Your task to perform on an android device: Go to accessibility settings Image 0: 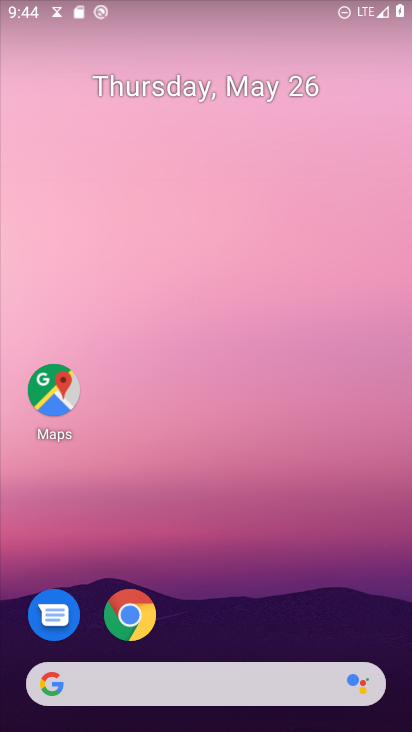
Step 0: drag from (201, 601) to (226, 255)
Your task to perform on an android device: Go to accessibility settings Image 1: 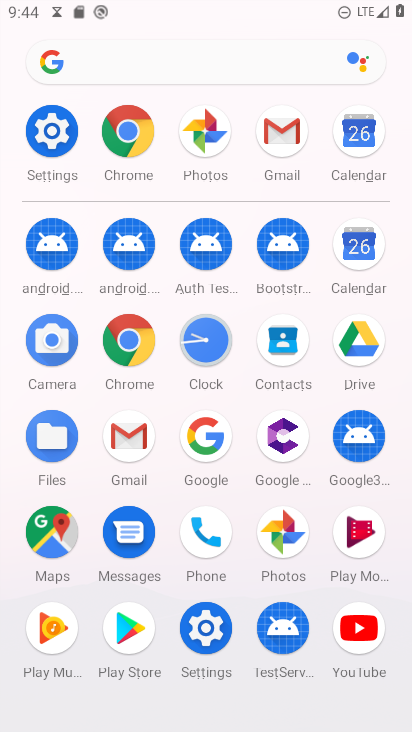
Step 1: click (38, 118)
Your task to perform on an android device: Go to accessibility settings Image 2: 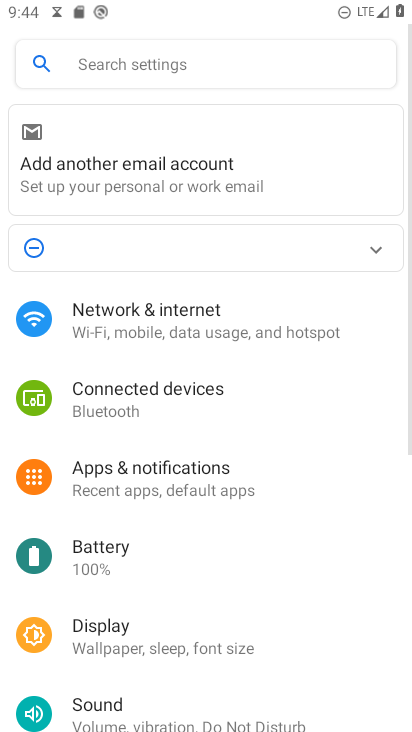
Step 2: drag from (175, 644) to (206, 215)
Your task to perform on an android device: Go to accessibility settings Image 3: 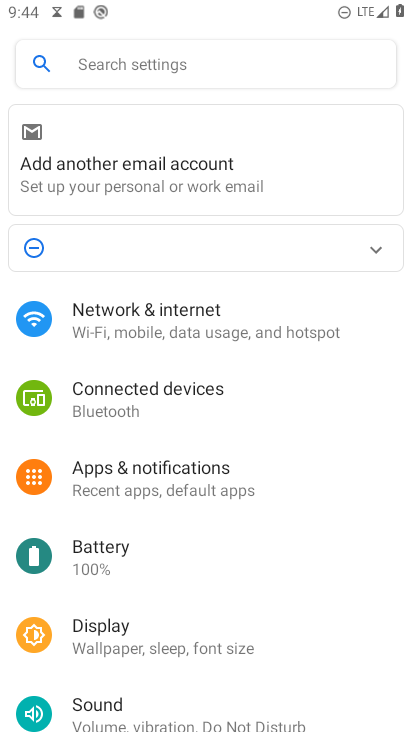
Step 3: drag from (156, 682) to (230, 193)
Your task to perform on an android device: Go to accessibility settings Image 4: 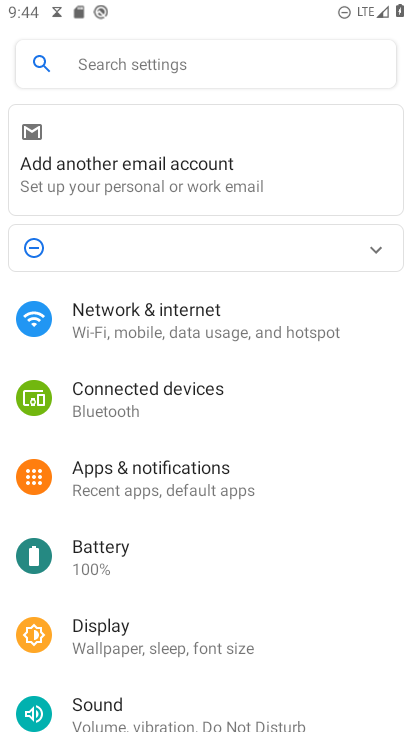
Step 4: drag from (237, 609) to (237, 341)
Your task to perform on an android device: Go to accessibility settings Image 5: 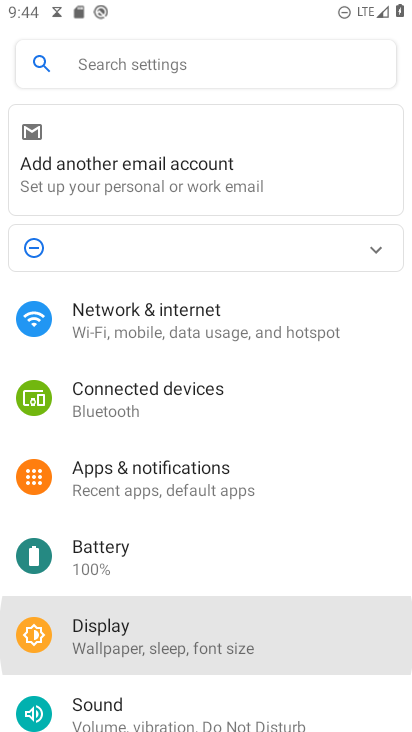
Step 5: drag from (223, 544) to (224, 264)
Your task to perform on an android device: Go to accessibility settings Image 6: 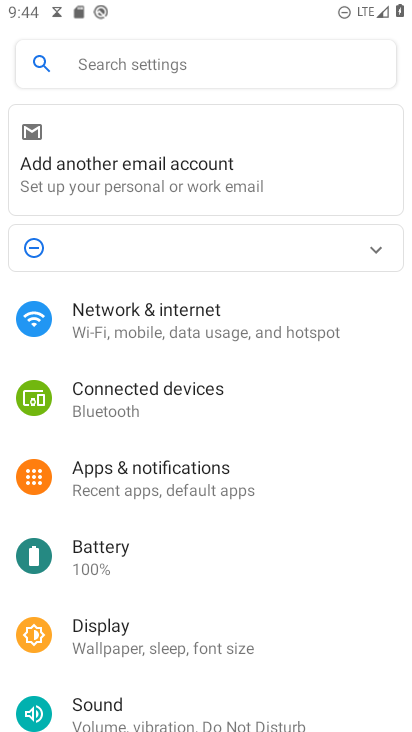
Step 6: drag from (218, 487) to (235, 139)
Your task to perform on an android device: Go to accessibility settings Image 7: 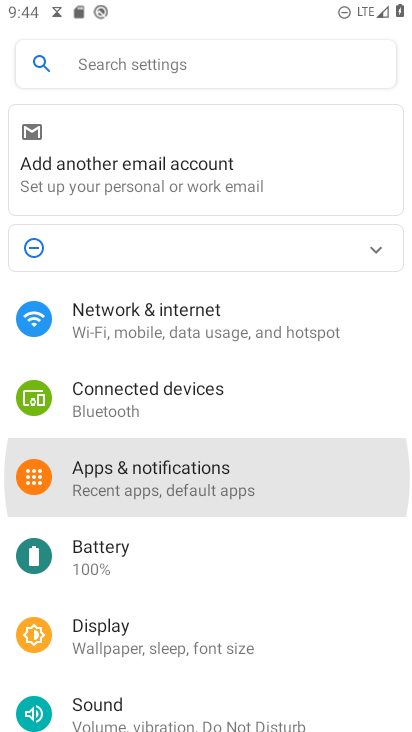
Step 7: drag from (200, 467) to (233, 165)
Your task to perform on an android device: Go to accessibility settings Image 8: 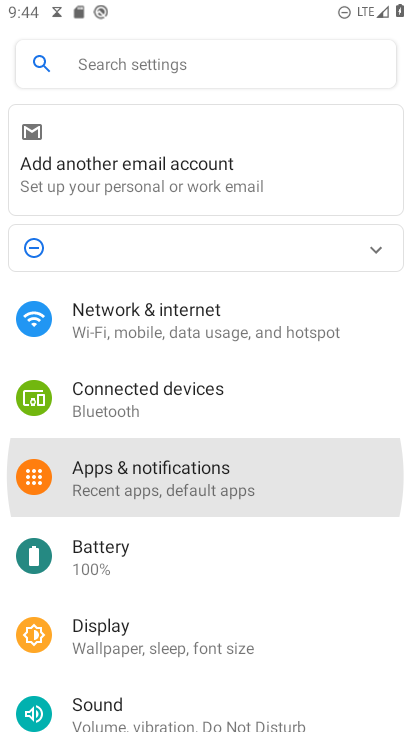
Step 8: drag from (208, 457) to (227, 177)
Your task to perform on an android device: Go to accessibility settings Image 9: 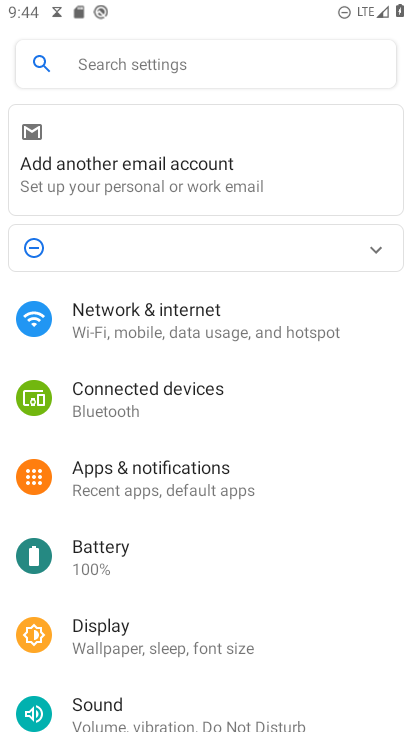
Step 9: drag from (214, 539) to (258, 173)
Your task to perform on an android device: Go to accessibility settings Image 10: 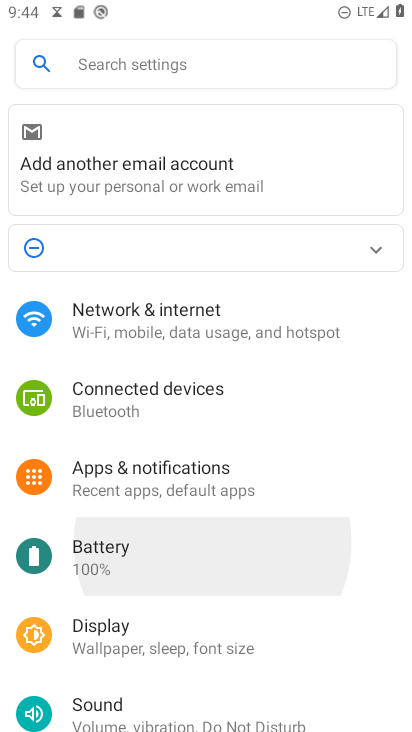
Step 10: drag from (205, 571) to (259, 246)
Your task to perform on an android device: Go to accessibility settings Image 11: 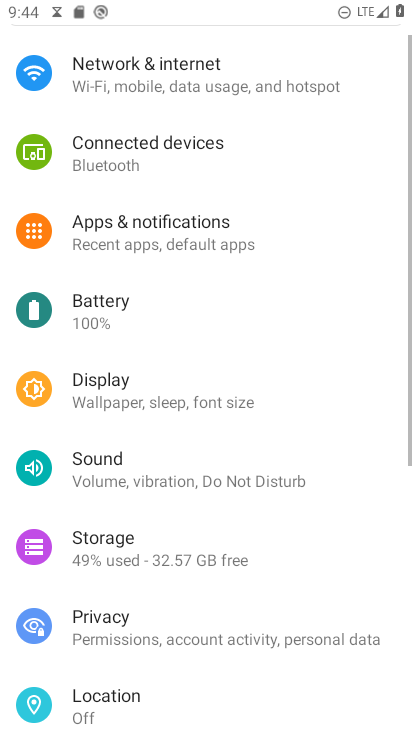
Step 11: drag from (206, 586) to (251, 243)
Your task to perform on an android device: Go to accessibility settings Image 12: 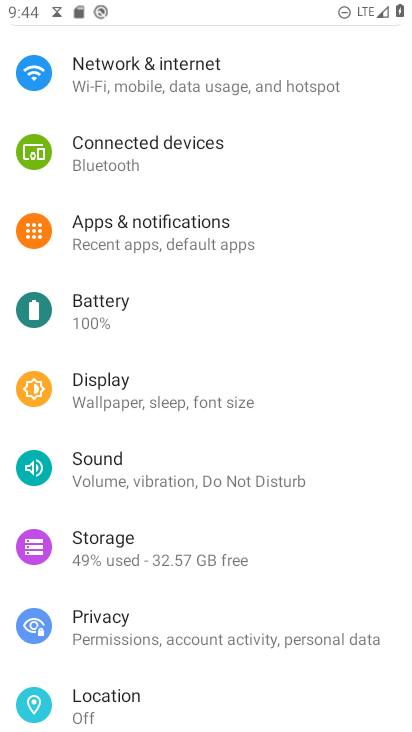
Step 12: drag from (207, 590) to (228, 178)
Your task to perform on an android device: Go to accessibility settings Image 13: 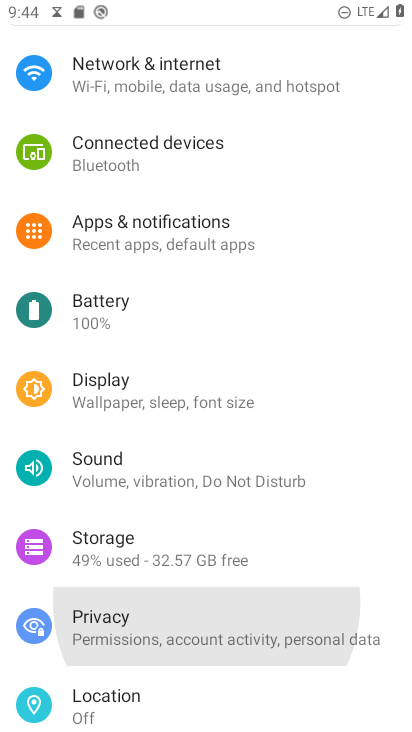
Step 13: drag from (170, 604) to (246, 241)
Your task to perform on an android device: Go to accessibility settings Image 14: 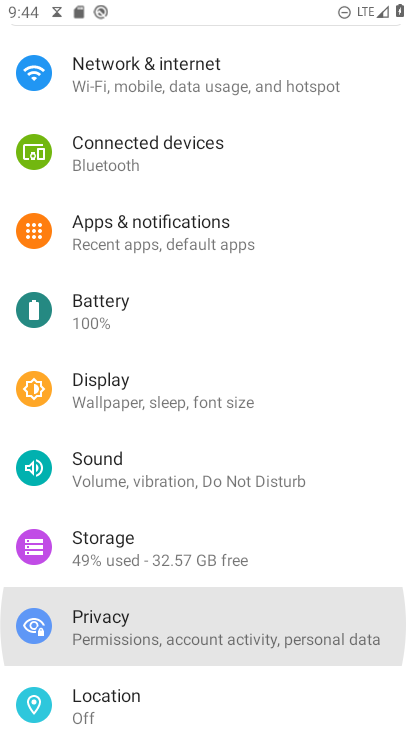
Step 14: drag from (198, 607) to (297, 140)
Your task to perform on an android device: Go to accessibility settings Image 15: 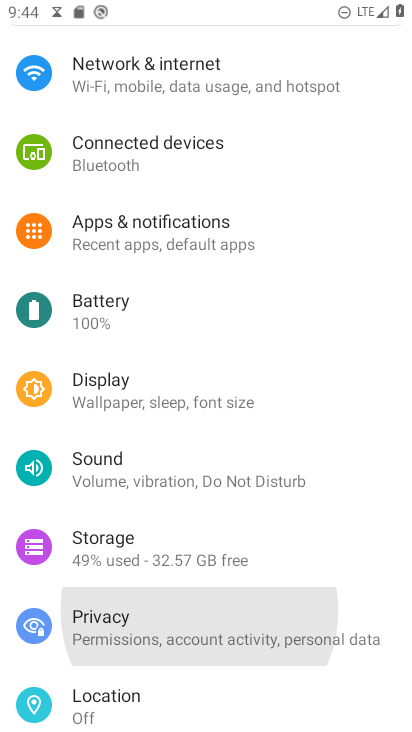
Step 15: drag from (243, 553) to (298, 158)
Your task to perform on an android device: Go to accessibility settings Image 16: 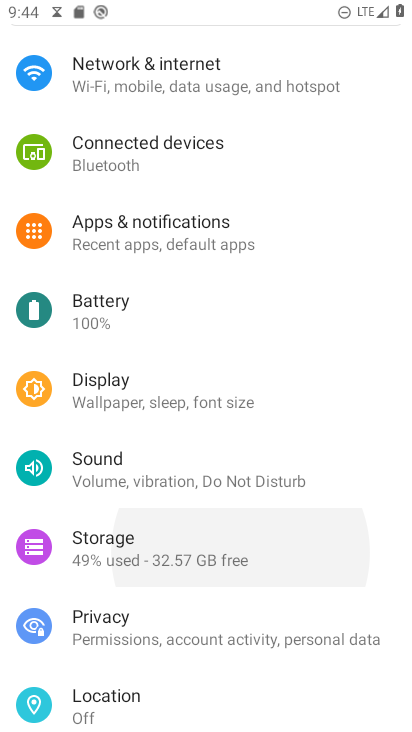
Step 16: drag from (217, 605) to (314, 140)
Your task to perform on an android device: Go to accessibility settings Image 17: 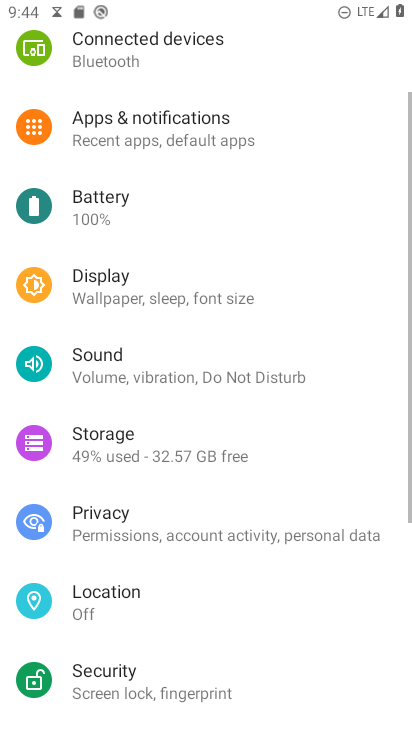
Step 17: drag from (248, 523) to (301, 188)
Your task to perform on an android device: Go to accessibility settings Image 18: 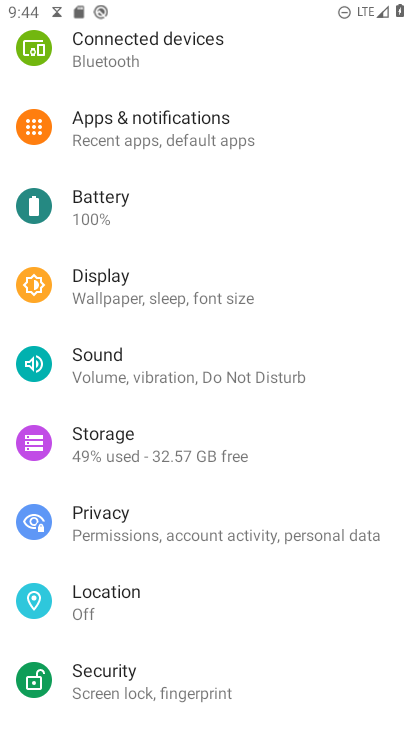
Step 18: drag from (163, 670) to (248, 225)
Your task to perform on an android device: Go to accessibility settings Image 19: 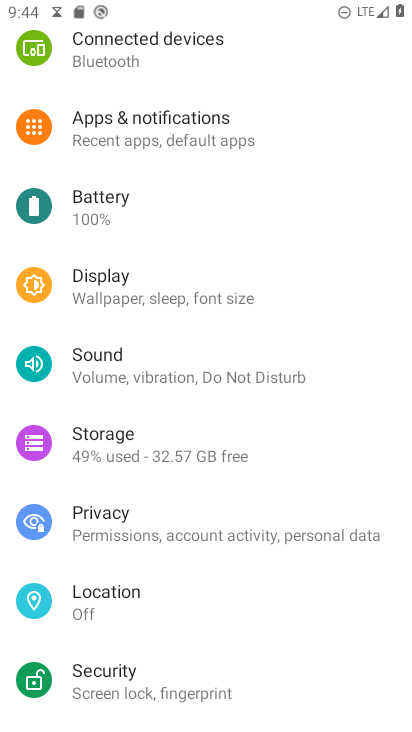
Step 19: drag from (260, 181) to (299, 31)
Your task to perform on an android device: Go to accessibility settings Image 20: 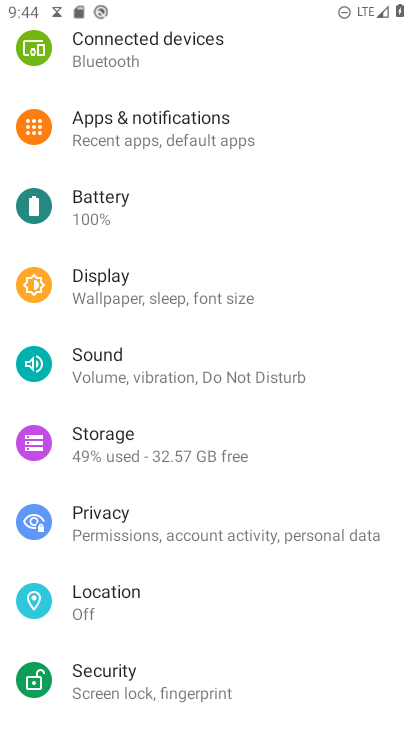
Step 20: click (137, 469)
Your task to perform on an android device: Go to accessibility settings Image 21: 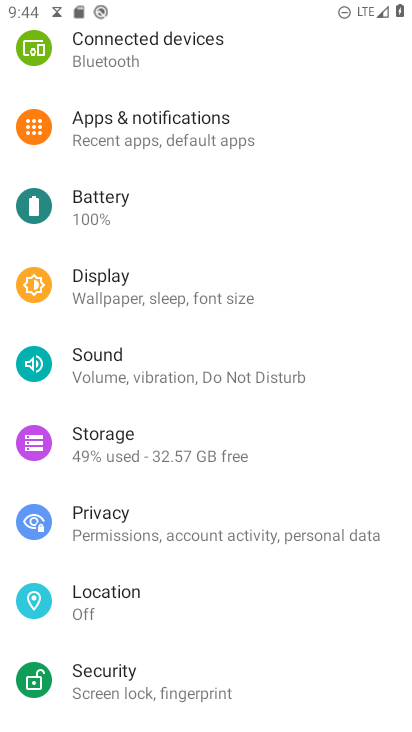
Step 21: drag from (118, 702) to (280, 207)
Your task to perform on an android device: Go to accessibility settings Image 22: 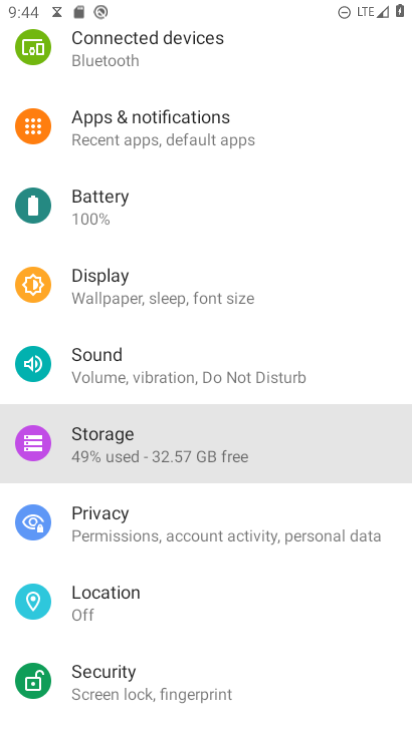
Step 22: drag from (176, 533) to (251, 258)
Your task to perform on an android device: Go to accessibility settings Image 23: 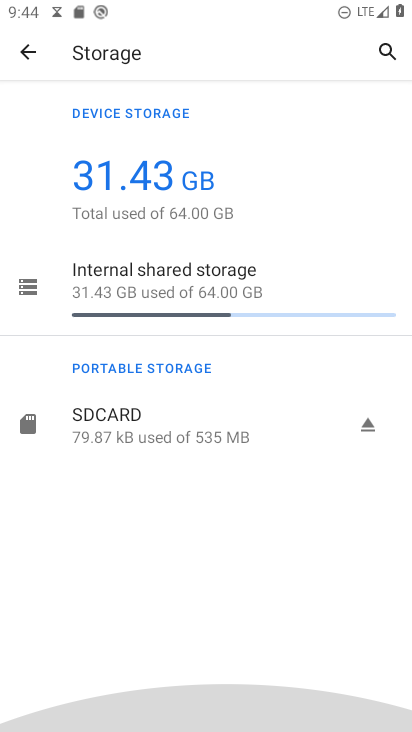
Step 23: drag from (188, 539) to (288, 196)
Your task to perform on an android device: Go to accessibility settings Image 24: 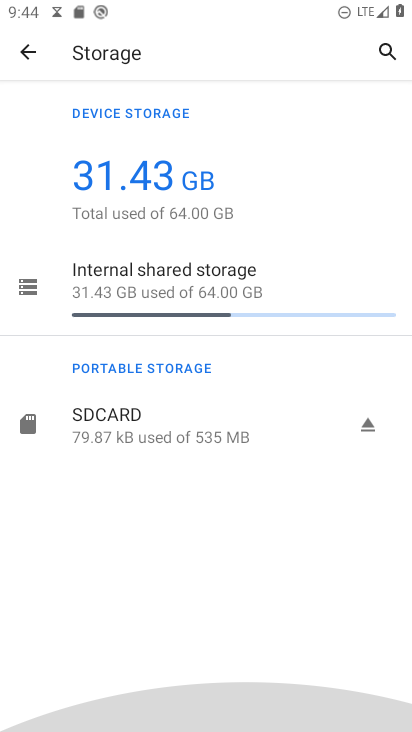
Step 24: drag from (233, 390) to (272, 210)
Your task to perform on an android device: Go to accessibility settings Image 25: 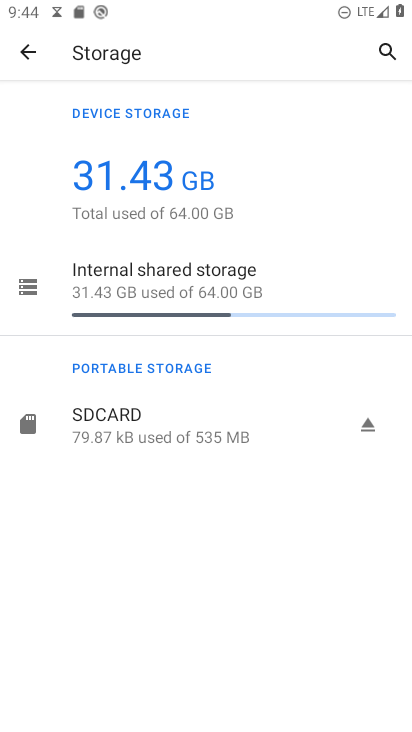
Step 25: click (37, 44)
Your task to perform on an android device: Go to accessibility settings Image 26: 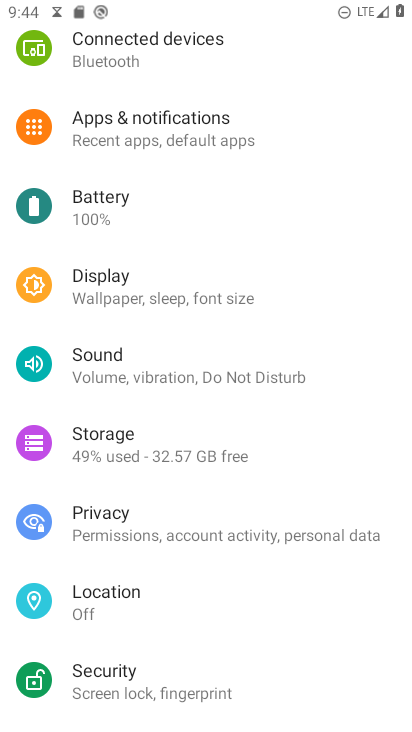
Step 26: drag from (248, 643) to (314, 1)
Your task to perform on an android device: Go to accessibility settings Image 27: 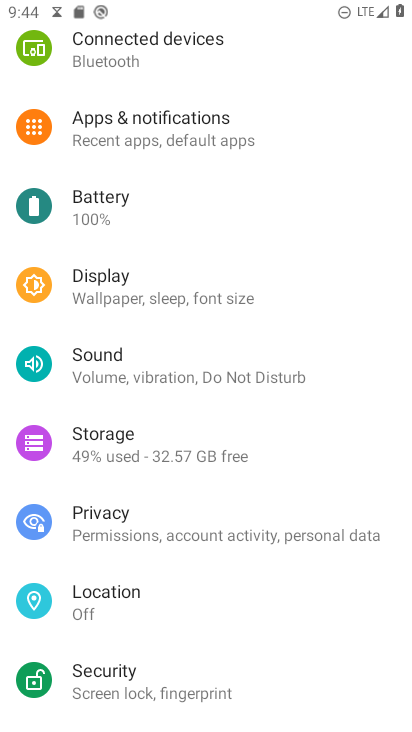
Step 27: drag from (251, 471) to (243, 151)
Your task to perform on an android device: Go to accessibility settings Image 28: 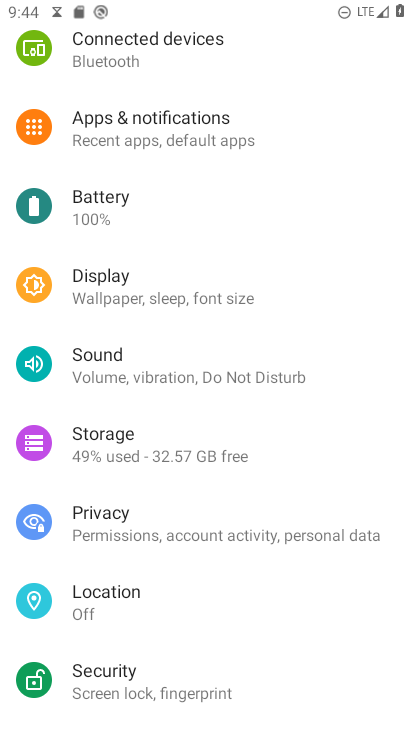
Step 28: drag from (213, 617) to (266, 192)
Your task to perform on an android device: Go to accessibility settings Image 29: 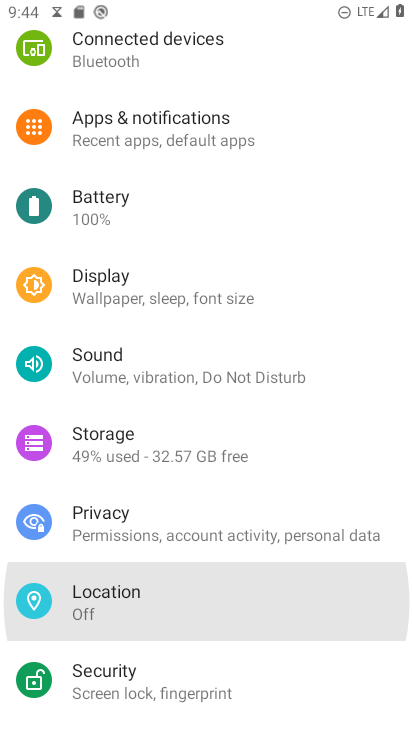
Step 29: drag from (226, 522) to (304, 148)
Your task to perform on an android device: Go to accessibility settings Image 30: 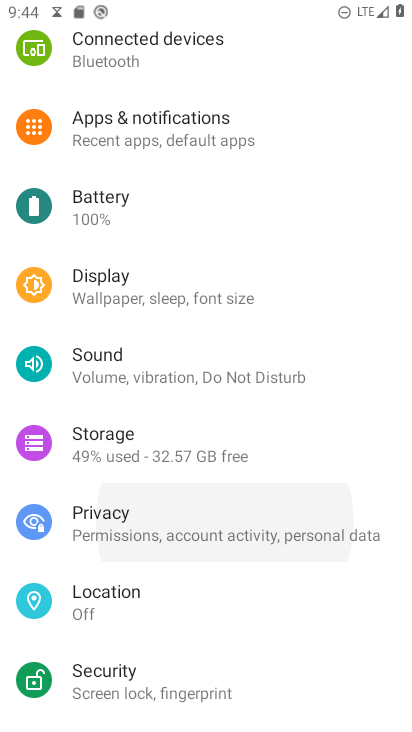
Step 30: drag from (191, 463) to (244, 200)
Your task to perform on an android device: Go to accessibility settings Image 31: 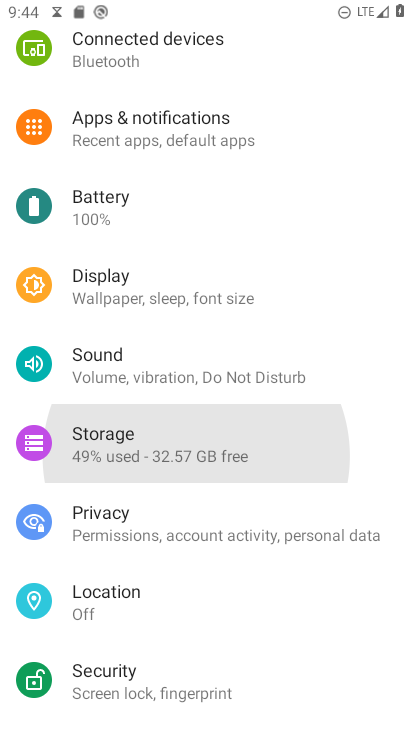
Step 31: drag from (209, 448) to (288, 118)
Your task to perform on an android device: Go to accessibility settings Image 32: 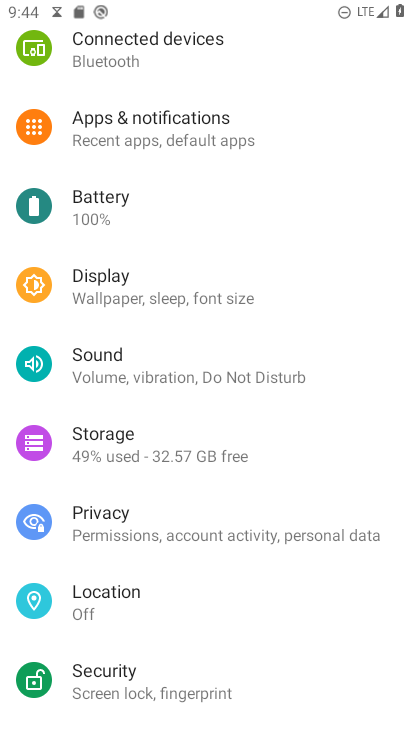
Step 32: drag from (258, 222) to (282, 129)
Your task to perform on an android device: Go to accessibility settings Image 33: 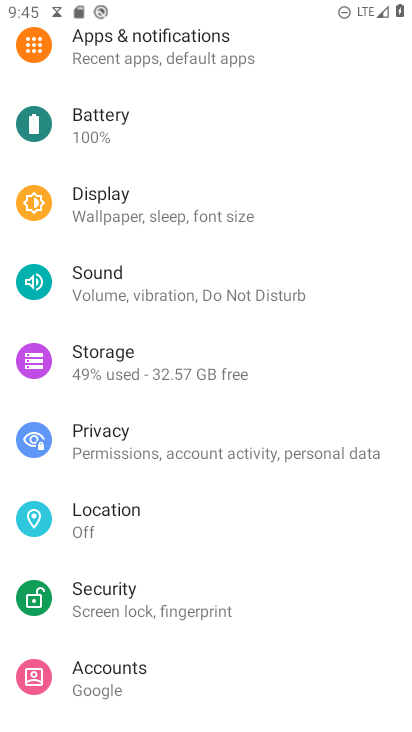
Step 33: drag from (267, 466) to (407, 329)
Your task to perform on an android device: Go to accessibility settings Image 34: 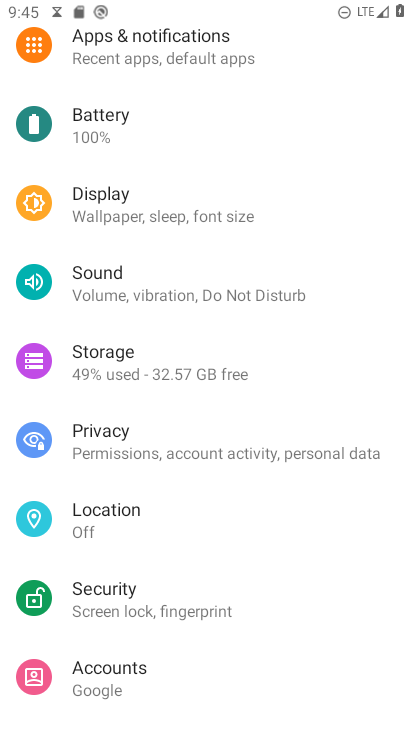
Step 34: drag from (270, 665) to (276, 8)
Your task to perform on an android device: Go to accessibility settings Image 35: 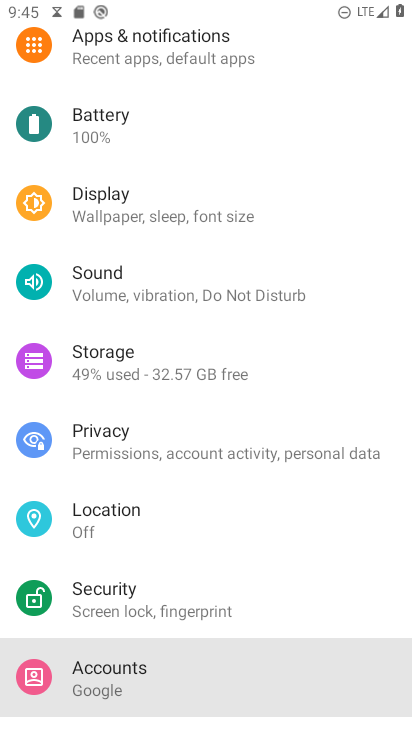
Step 35: drag from (222, 459) to (278, 59)
Your task to perform on an android device: Go to accessibility settings Image 36: 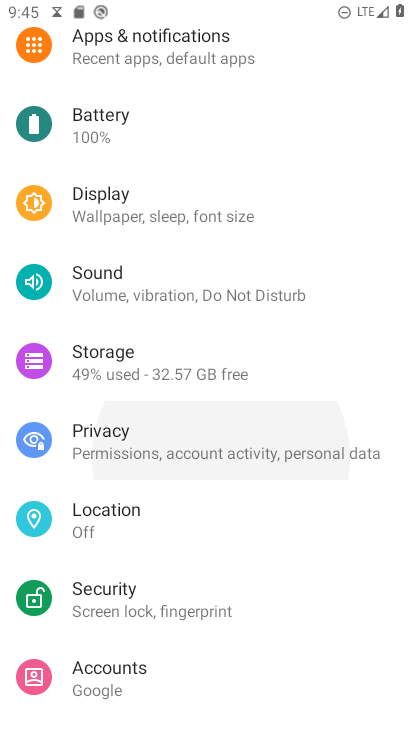
Step 36: click (299, 260)
Your task to perform on an android device: Go to accessibility settings Image 37: 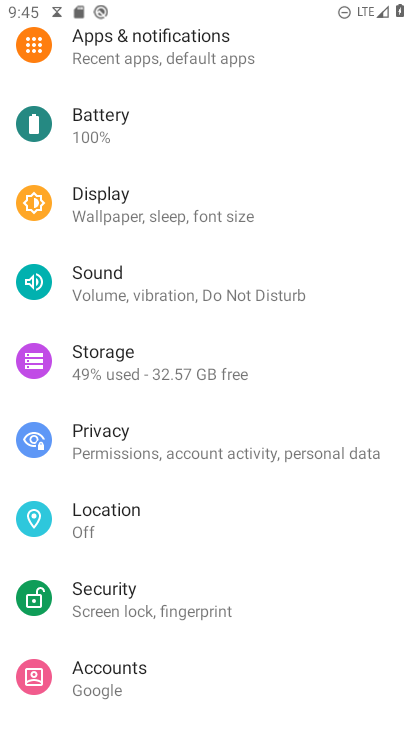
Step 37: drag from (259, 649) to (259, 313)
Your task to perform on an android device: Go to accessibility settings Image 38: 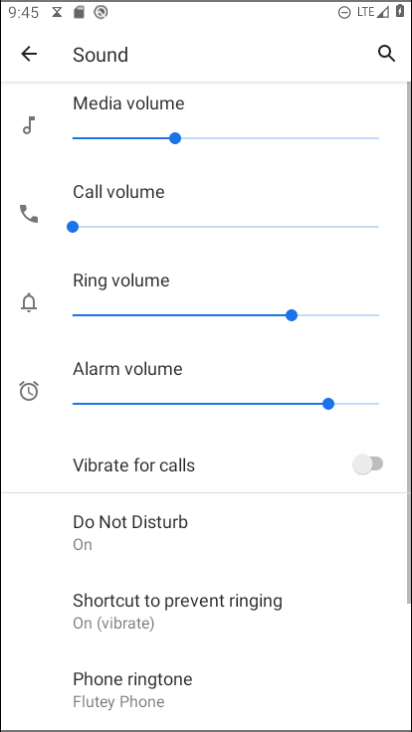
Step 38: drag from (217, 575) to (255, 141)
Your task to perform on an android device: Go to accessibility settings Image 39: 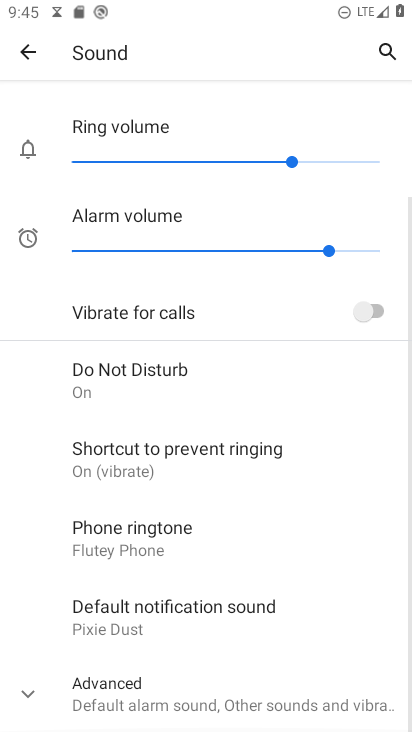
Step 39: click (38, 37)
Your task to perform on an android device: Go to accessibility settings Image 40: 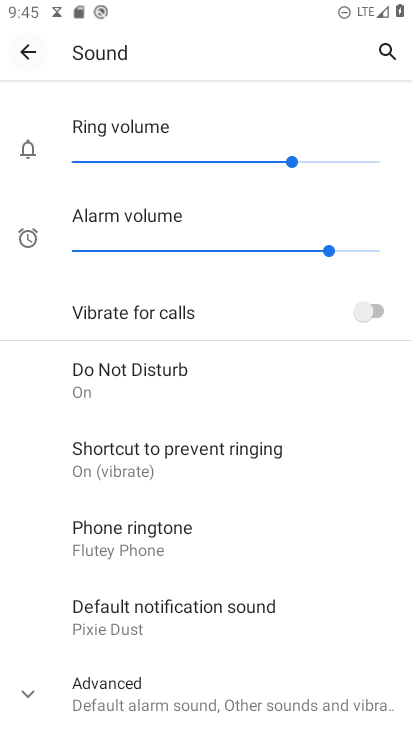
Step 40: click (26, 45)
Your task to perform on an android device: Go to accessibility settings Image 41: 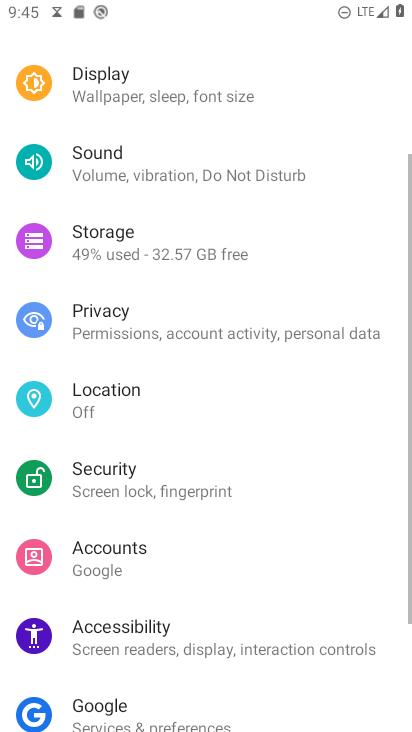
Step 41: drag from (226, 77) to (288, 186)
Your task to perform on an android device: Go to accessibility settings Image 42: 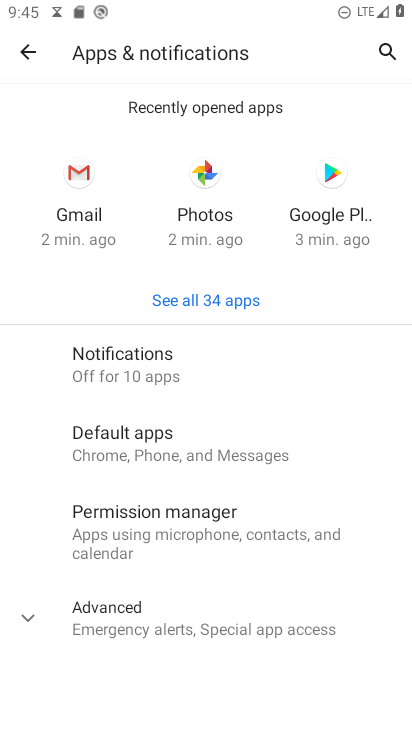
Step 42: click (29, 47)
Your task to perform on an android device: Go to accessibility settings Image 43: 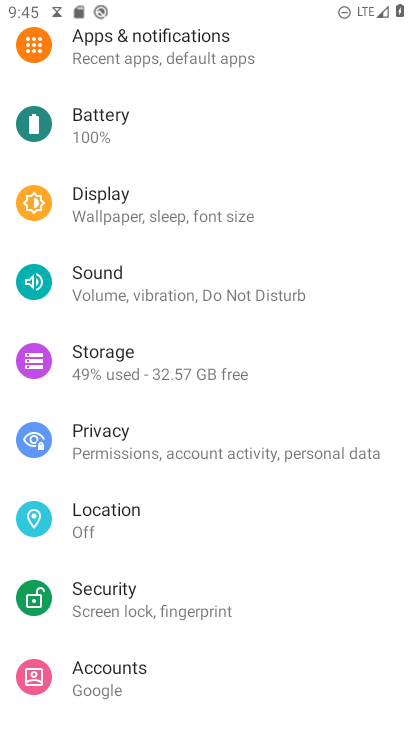
Step 43: drag from (47, 679) to (110, 374)
Your task to perform on an android device: Go to accessibility settings Image 44: 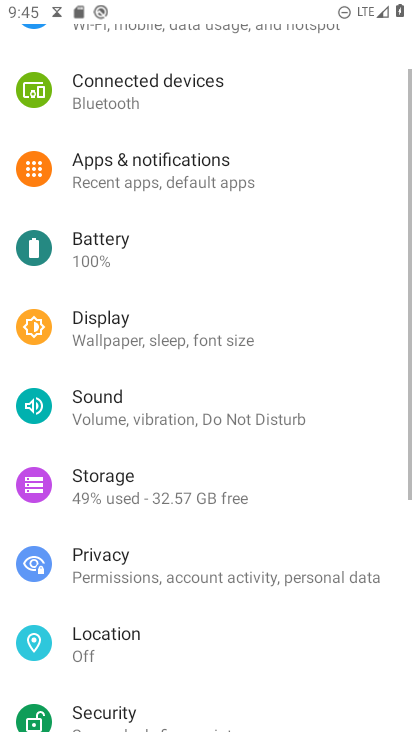
Step 44: click (152, 368)
Your task to perform on an android device: Go to accessibility settings Image 45: 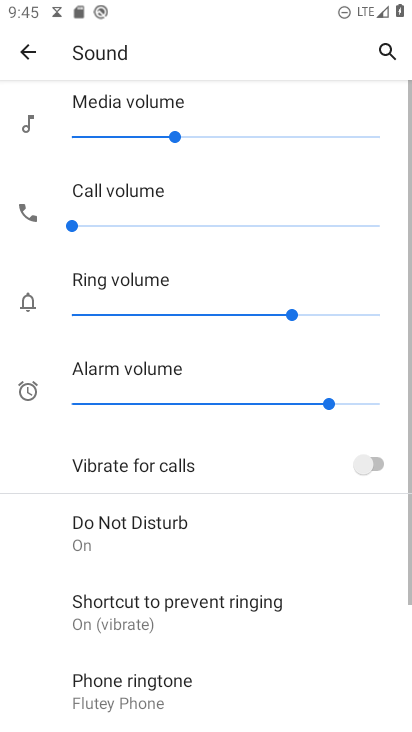
Step 45: click (30, 55)
Your task to perform on an android device: Go to accessibility settings Image 46: 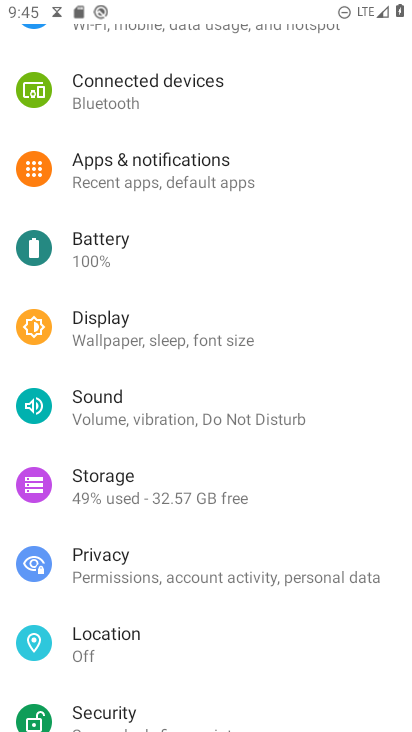
Step 46: task complete